Your task to perform on an android device: Go to Android settings Image 0: 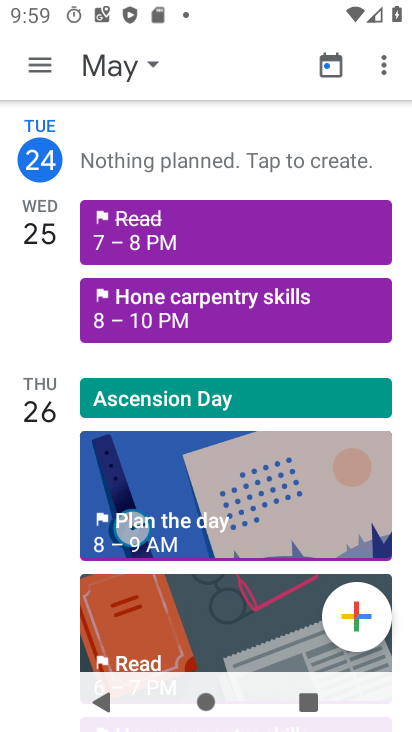
Step 0: press home button
Your task to perform on an android device: Go to Android settings Image 1: 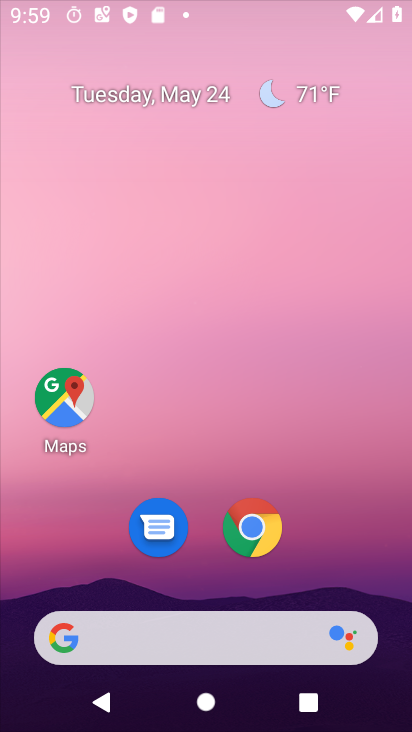
Step 1: drag from (210, 572) to (224, 116)
Your task to perform on an android device: Go to Android settings Image 2: 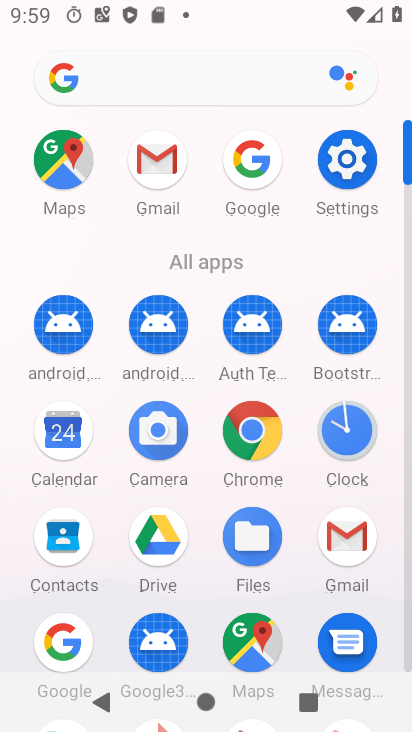
Step 2: click (342, 159)
Your task to perform on an android device: Go to Android settings Image 3: 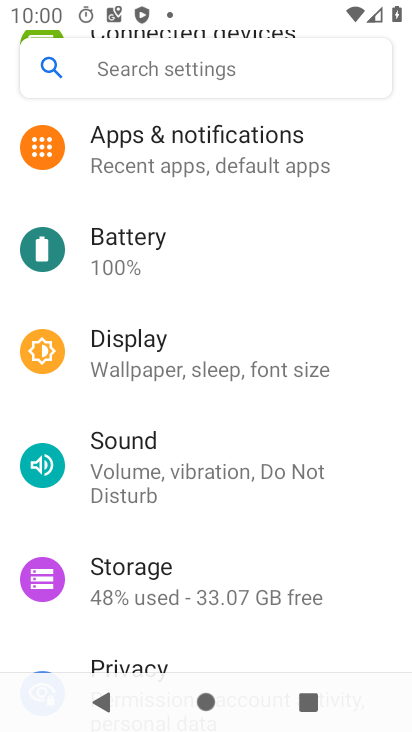
Step 3: task complete